Your task to perform on an android device: Go to Google maps Image 0: 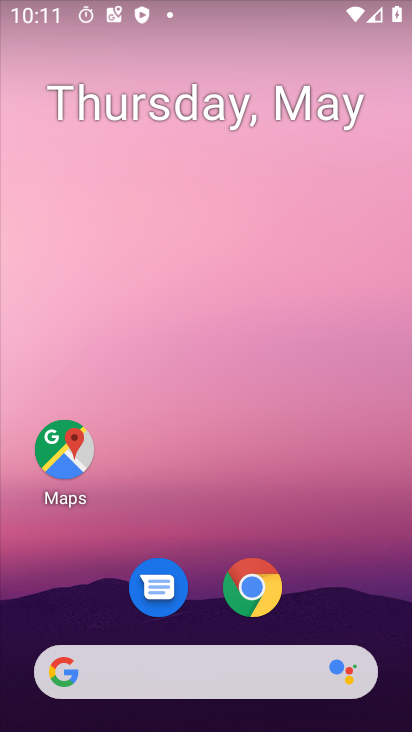
Step 0: click (62, 460)
Your task to perform on an android device: Go to Google maps Image 1: 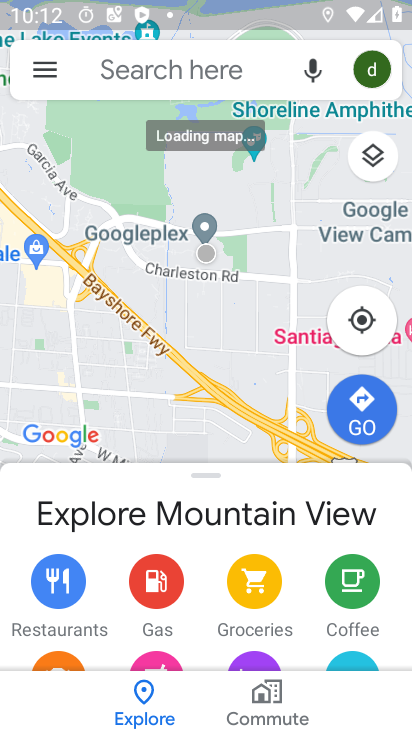
Step 1: task complete